Your task to perform on an android device: toggle data saver in the chrome app Image 0: 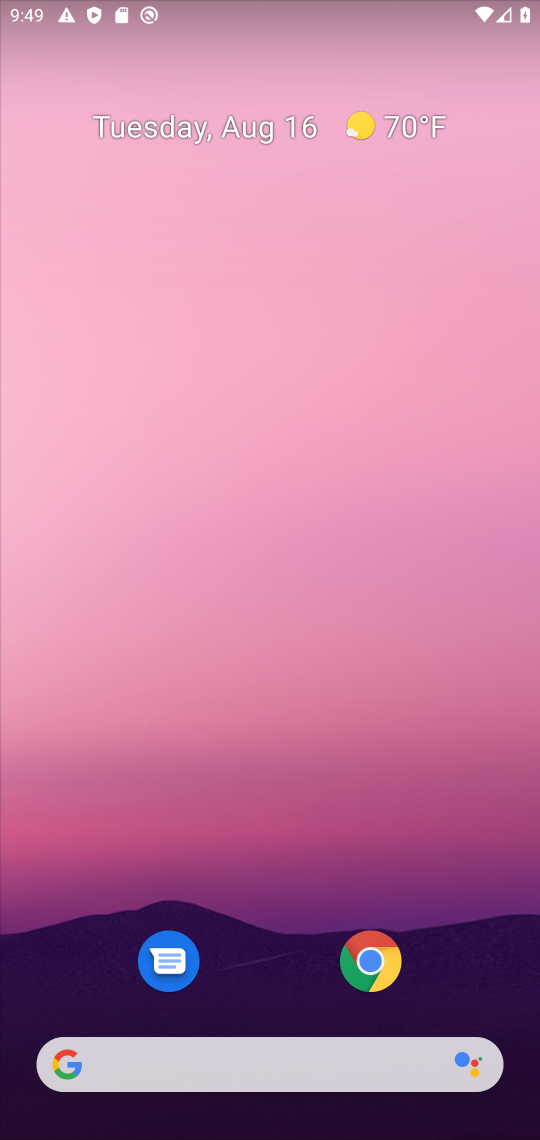
Step 0: click (384, 953)
Your task to perform on an android device: toggle data saver in the chrome app Image 1: 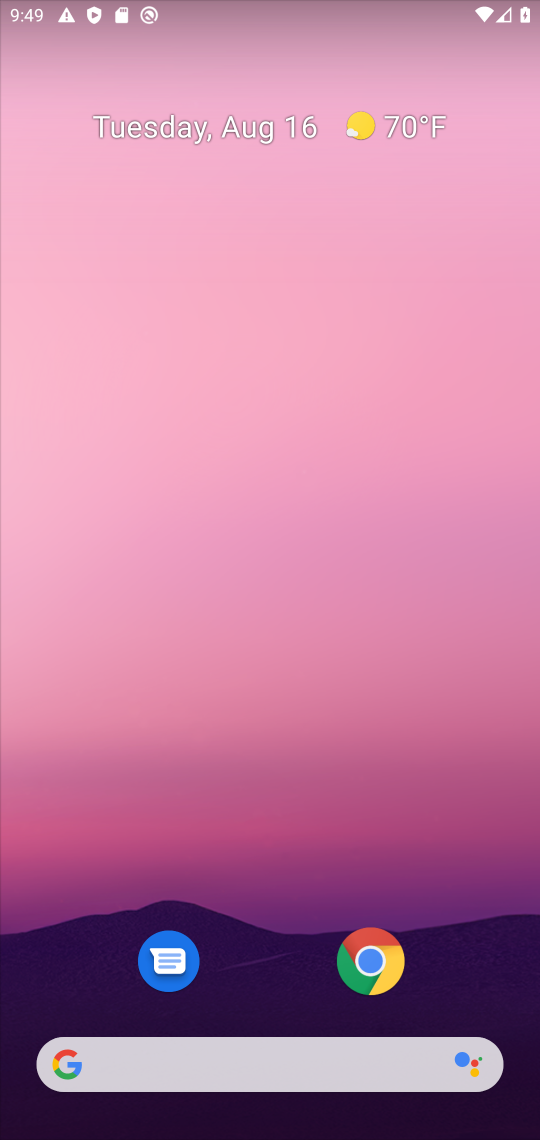
Step 1: click (384, 953)
Your task to perform on an android device: toggle data saver in the chrome app Image 2: 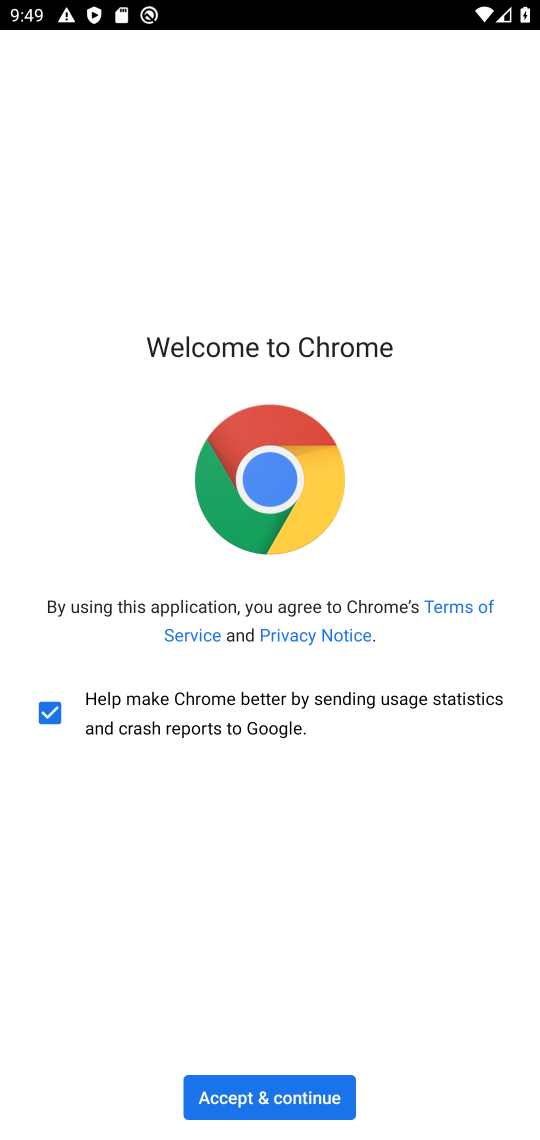
Step 2: click (295, 1102)
Your task to perform on an android device: toggle data saver in the chrome app Image 3: 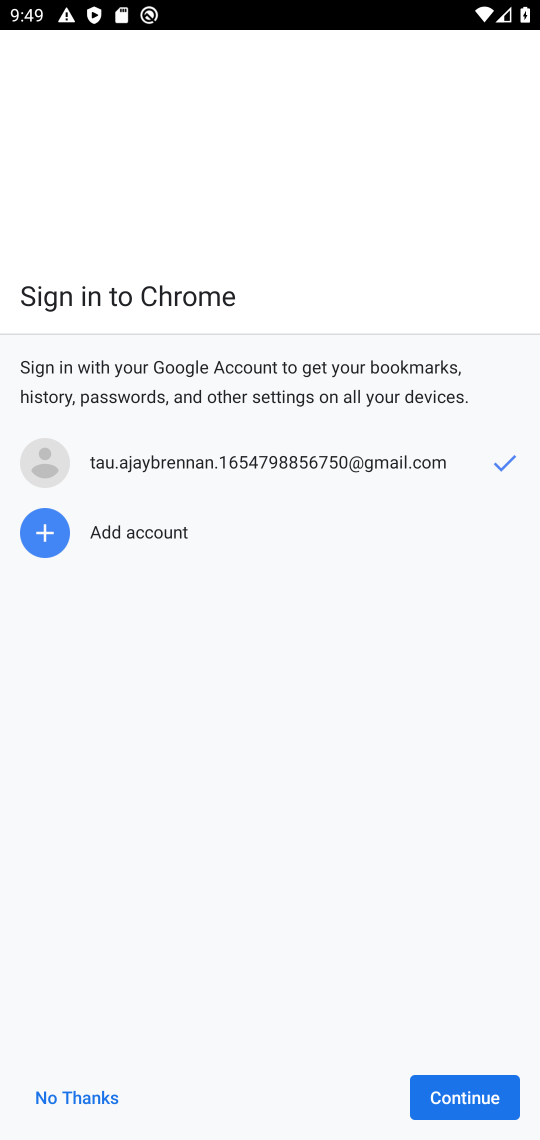
Step 3: click (464, 1094)
Your task to perform on an android device: toggle data saver in the chrome app Image 4: 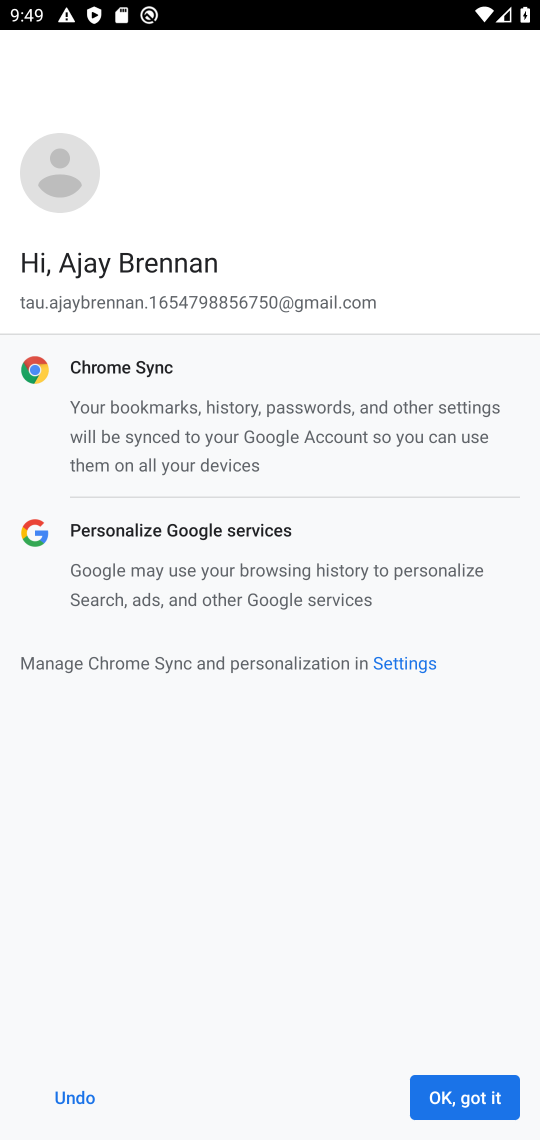
Step 4: click (464, 1094)
Your task to perform on an android device: toggle data saver in the chrome app Image 5: 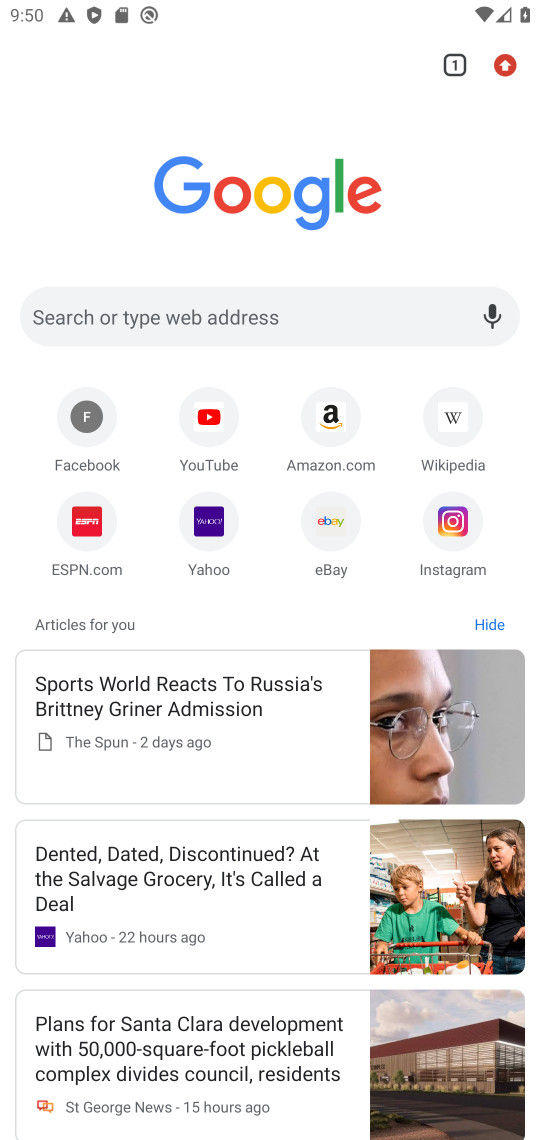
Step 5: task complete